Your task to perform on an android device: Go to settings Image 0: 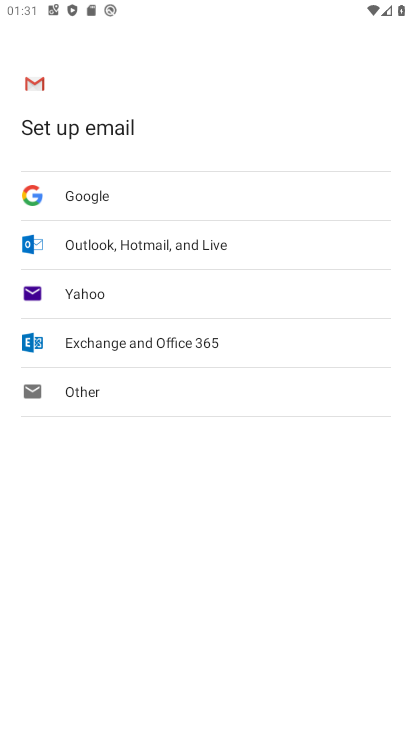
Step 0: press home button
Your task to perform on an android device: Go to settings Image 1: 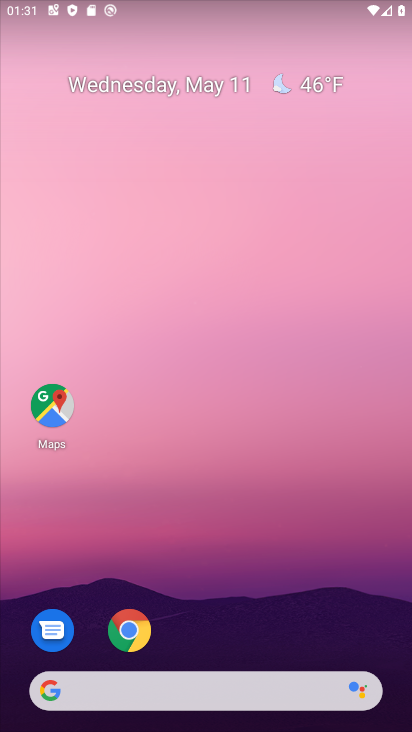
Step 1: drag from (326, 573) to (290, 0)
Your task to perform on an android device: Go to settings Image 2: 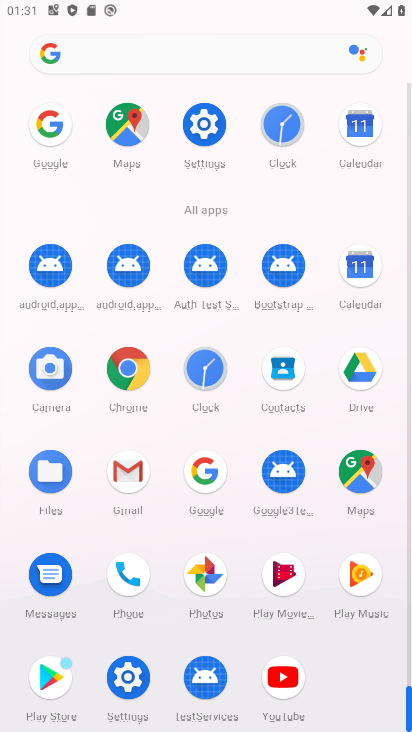
Step 2: click (224, 134)
Your task to perform on an android device: Go to settings Image 3: 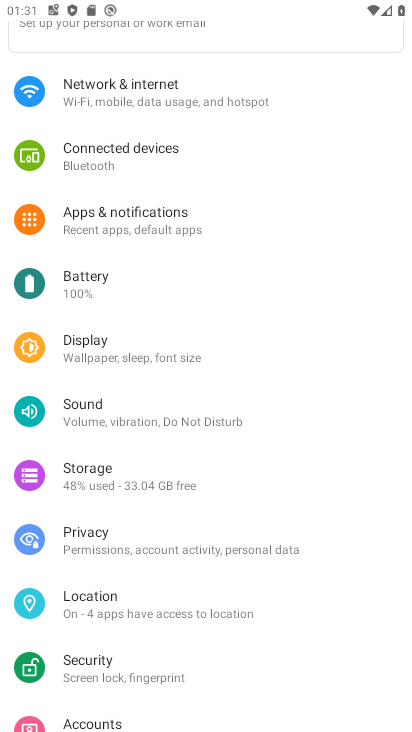
Step 3: task complete